Your task to perform on an android device: Go to sound settings Image 0: 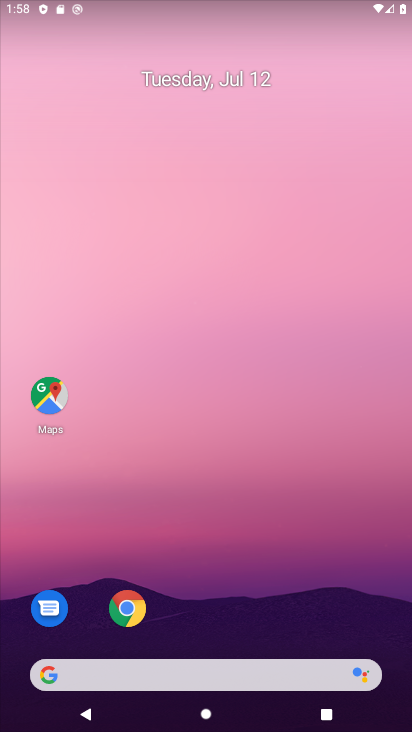
Step 0: drag from (259, 571) to (188, 120)
Your task to perform on an android device: Go to sound settings Image 1: 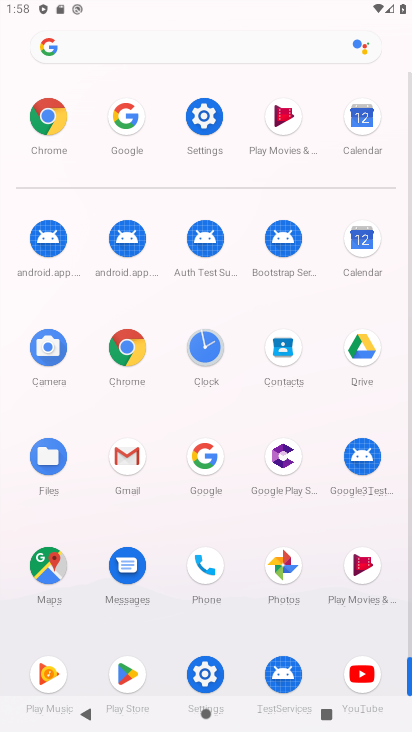
Step 1: click (210, 116)
Your task to perform on an android device: Go to sound settings Image 2: 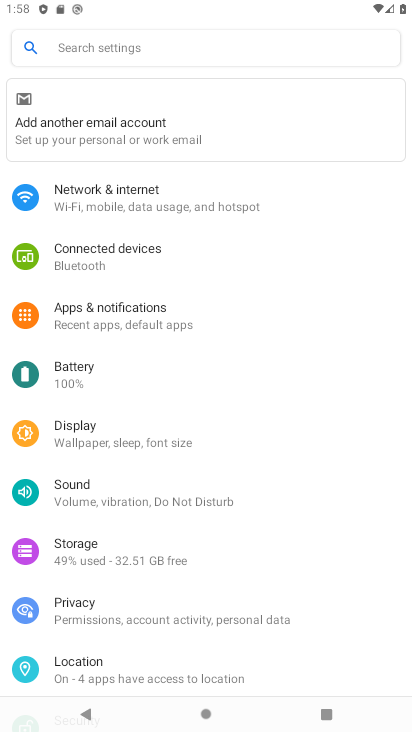
Step 2: click (164, 491)
Your task to perform on an android device: Go to sound settings Image 3: 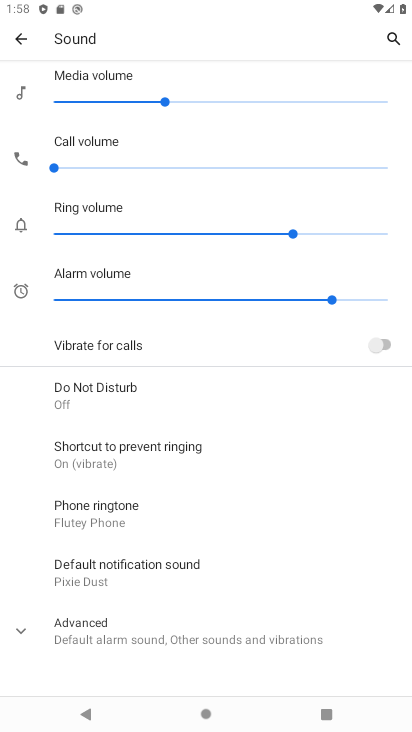
Step 3: task complete